Your task to perform on an android device: Open network settings Image 0: 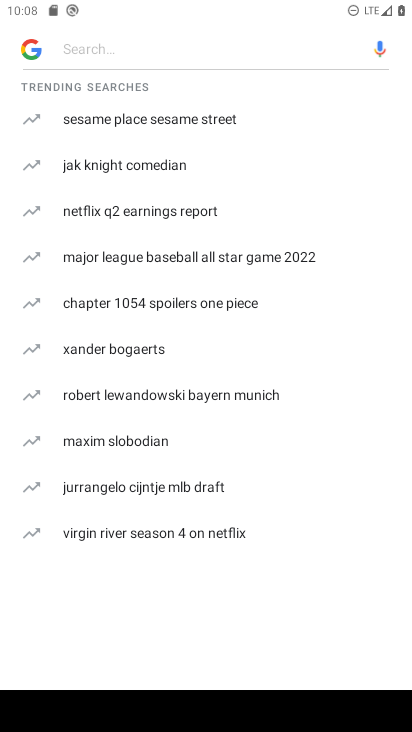
Step 0: press home button
Your task to perform on an android device: Open network settings Image 1: 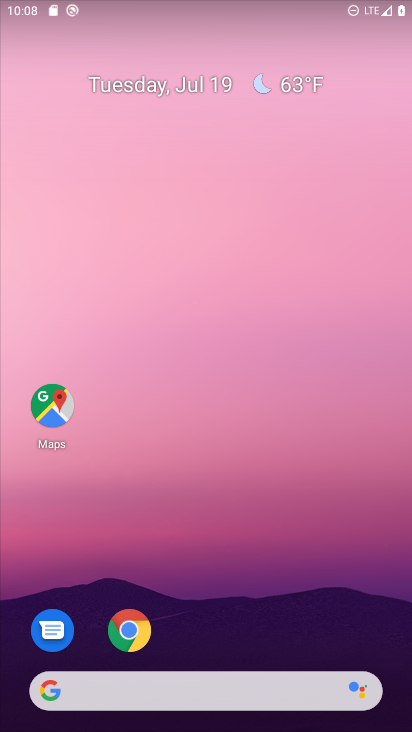
Step 1: drag from (202, 696) to (211, 83)
Your task to perform on an android device: Open network settings Image 2: 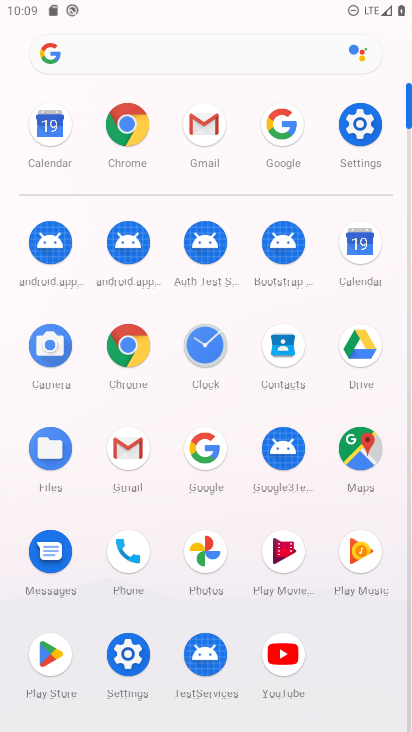
Step 2: click (211, 83)
Your task to perform on an android device: Open network settings Image 3: 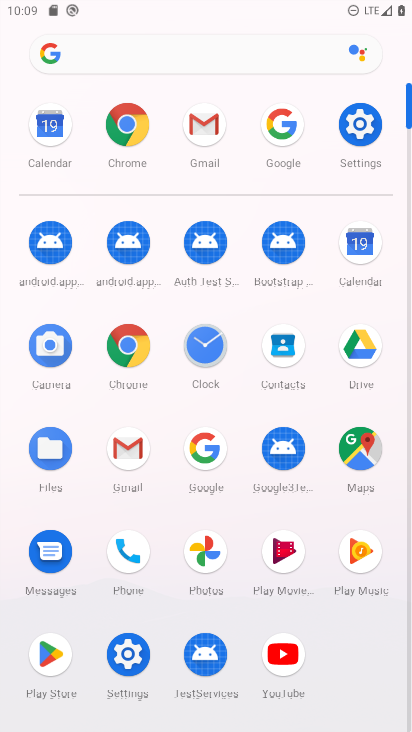
Step 3: click (361, 120)
Your task to perform on an android device: Open network settings Image 4: 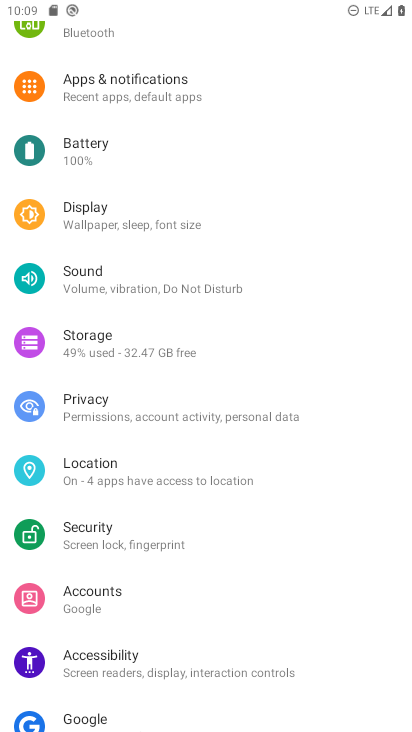
Step 4: drag from (117, 165) to (133, 322)
Your task to perform on an android device: Open network settings Image 5: 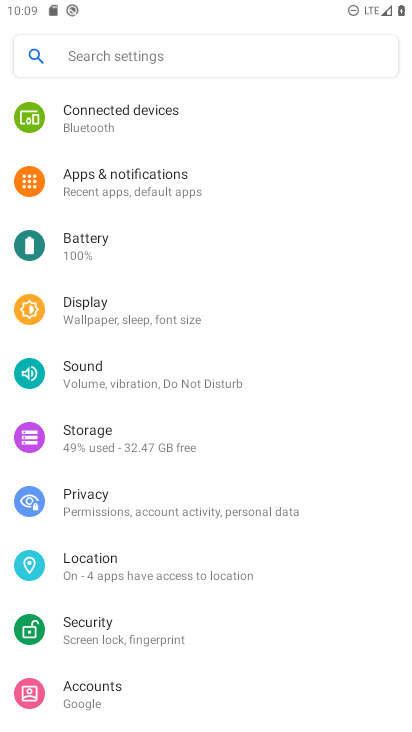
Step 5: drag from (167, 160) to (149, 398)
Your task to perform on an android device: Open network settings Image 6: 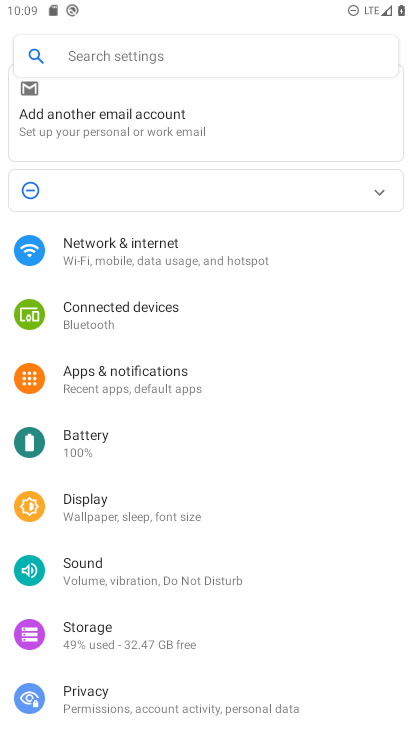
Step 6: click (129, 257)
Your task to perform on an android device: Open network settings Image 7: 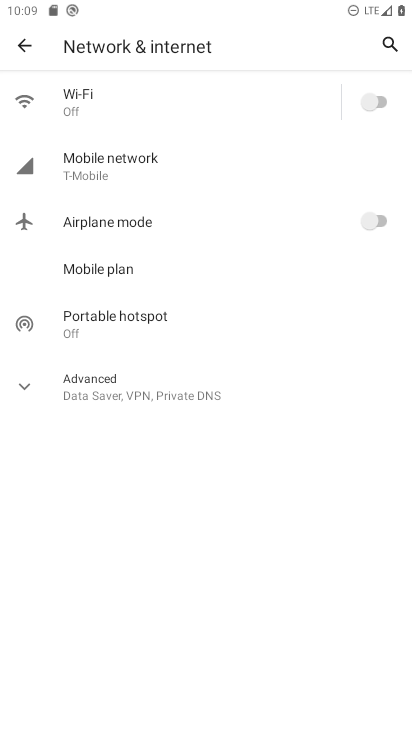
Step 7: task complete